Your task to perform on an android device: change the clock display to show seconds Image 0: 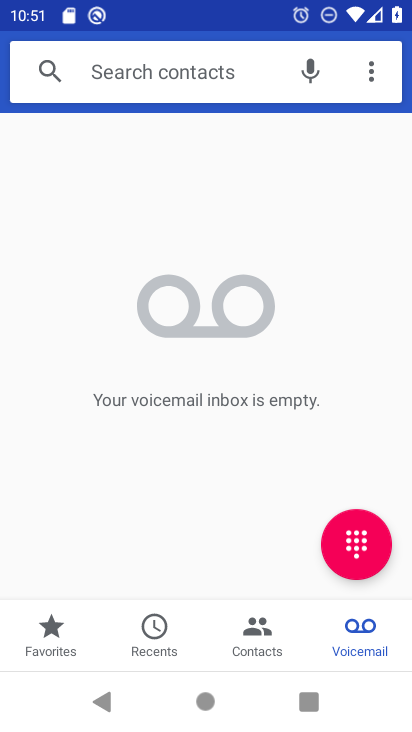
Step 0: press home button
Your task to perform on an android device: change the clock display to show seconds Image 1: 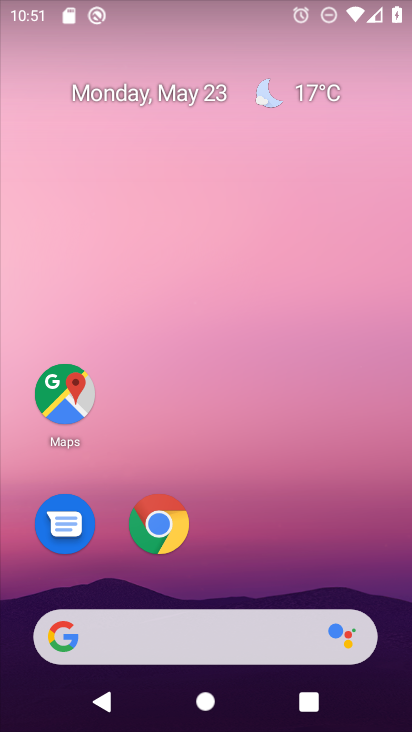
Step 1: drag from (229, 570) to (230, 127)
Your task to perform on an android device: change the clock display to show seconds Image 2: 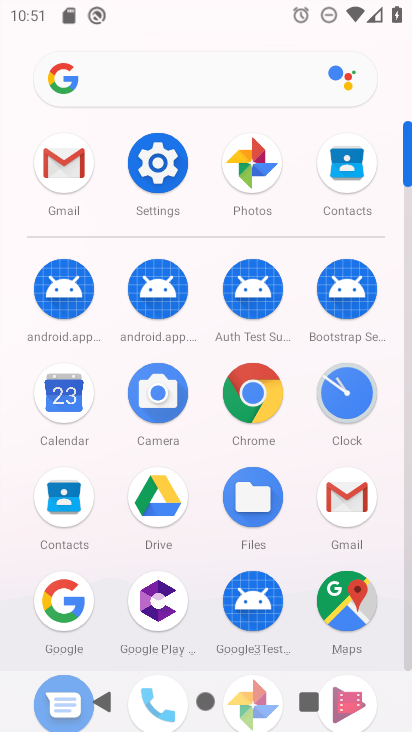
Step 2: click (331, 400)
Your task to perform on an android device: change the clock display to show seconds Image 3: 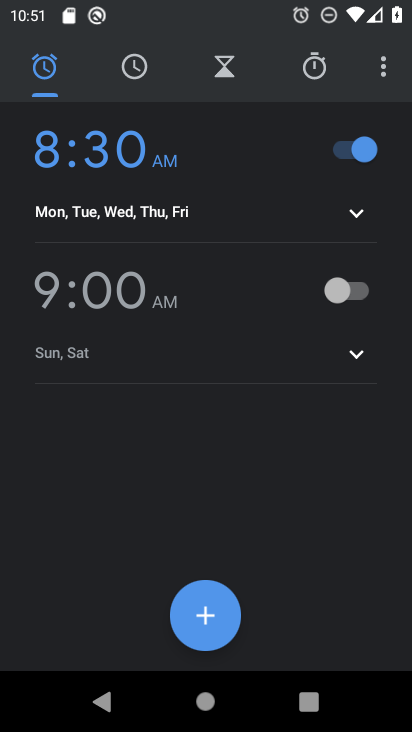
Step 3: click (379, 78)
Your task to perform on an android device: change the clock display to show seconds Image 4: 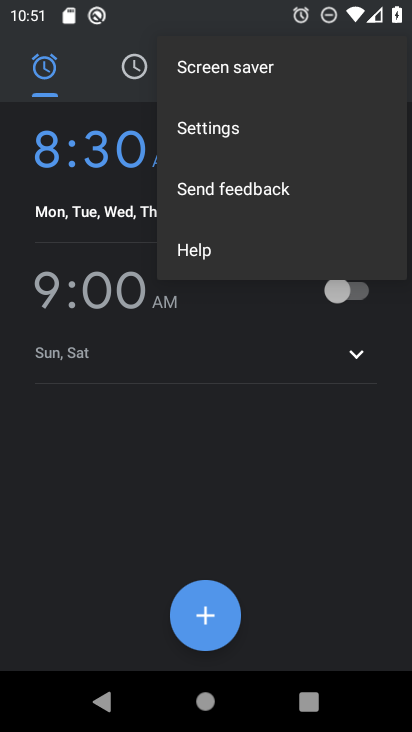
Step 4: click (261, 133)
Your task to perform on an android device: change the clock display to show seconds Image 5: 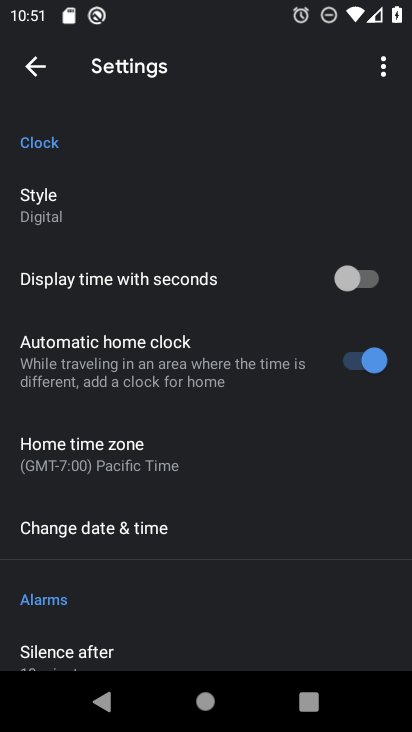
Step 5: click (91, 221)
Your task to perform on an android device: change the clock display to show seconds Image 6: 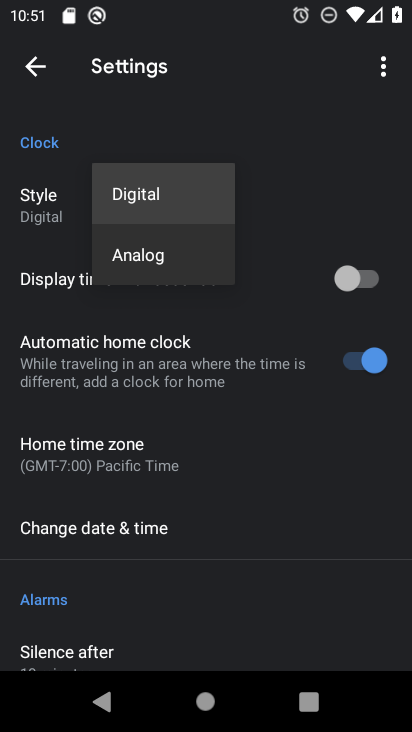
Step 6: click (358, 266)
Your task to perform on an android device: change the clock display to show seconds Image 7: 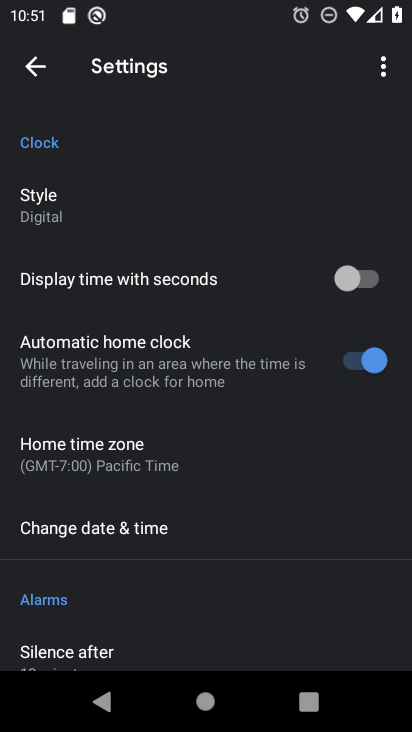
Step 7: click (370, 273)
Your task to perform on an android device: change the clock display to show seconds Image 8: 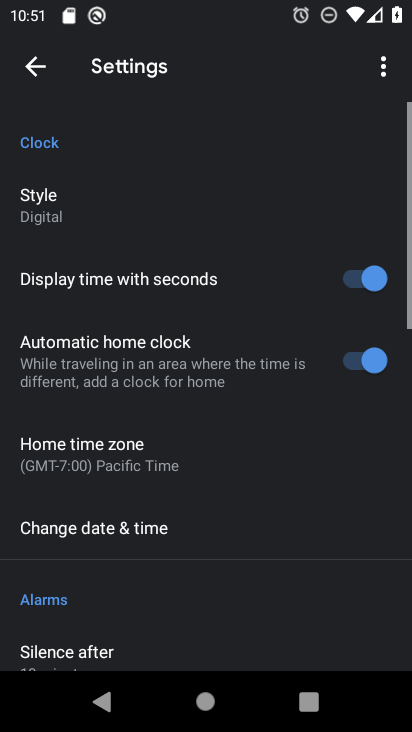
Step 8: task complete